Your task to perform on an android device: turn on wifi Image 0: 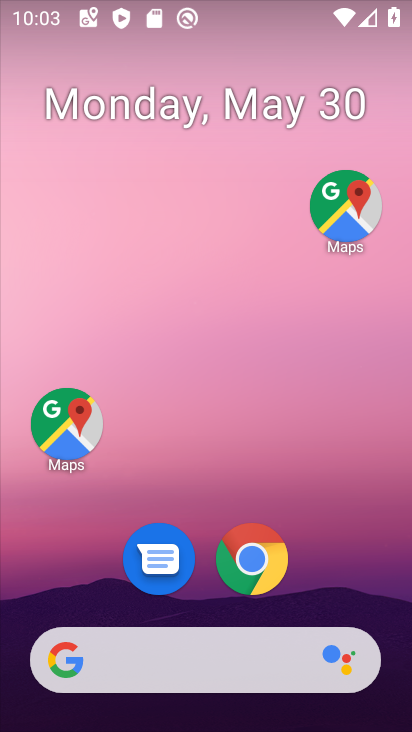
Step 0: drag from (329, 563) to (301, 133)
Your task to perform on an android device: turn on wifi Image 1: 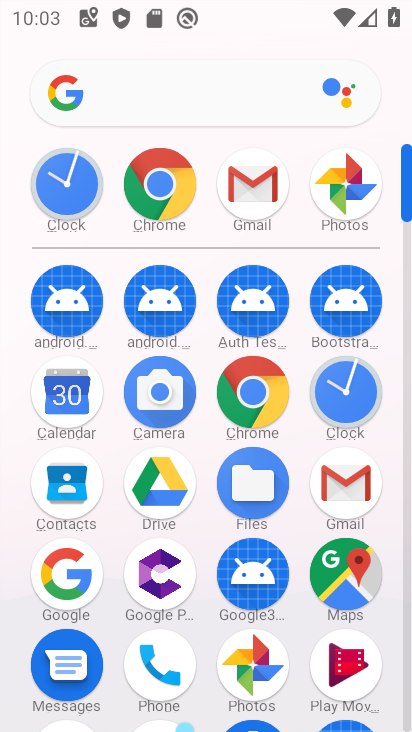
Step 1: drag from (294, 601) to (313, 303)
Your task to perform on an android device: turn on wifi Image 2: 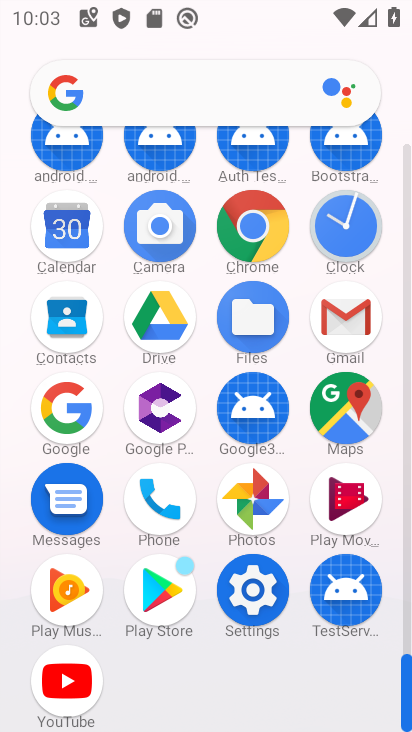
Step 2: click (254, 605)
Your task to perform on an android device: turn on wifi Image 3: 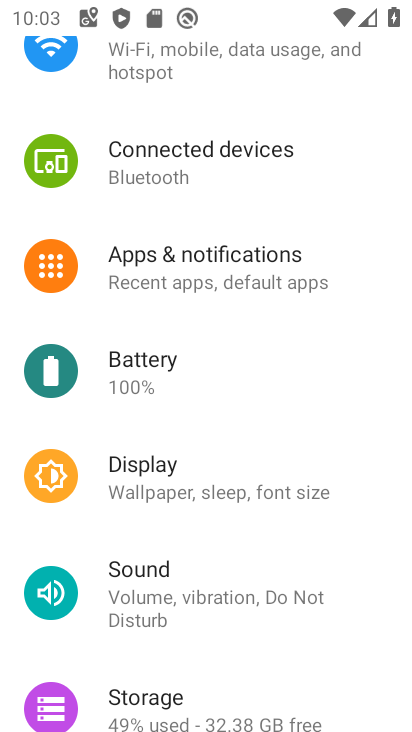
Step 3: drag from (226, 170) to (243, 581)
Your task to perform on an android device: turn on wifi Image 4: 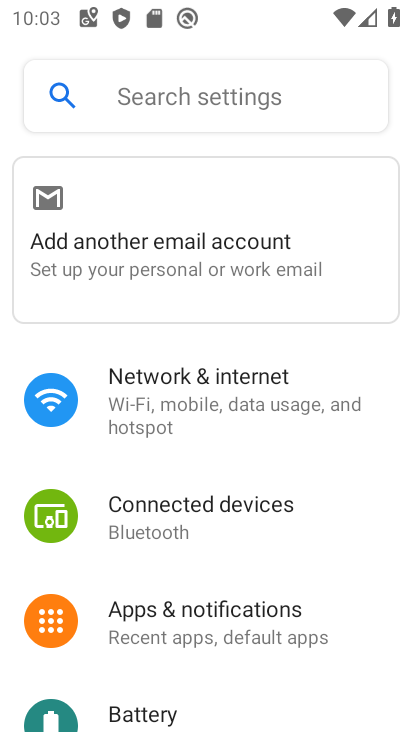
Step 4: click (198, 379)
Your task to perform on an android device: turn on wifi Image 5: 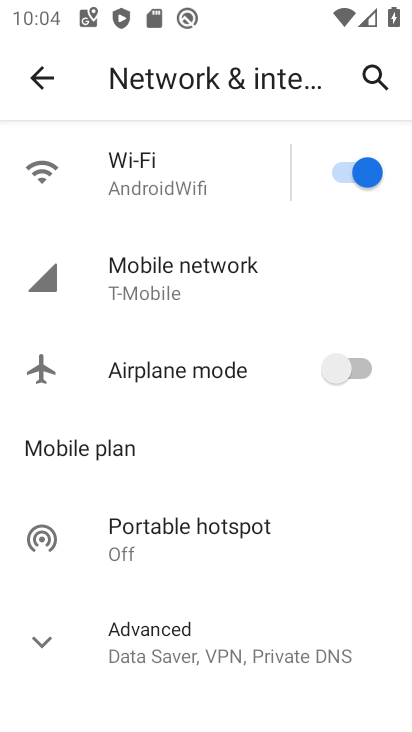
Step 5: task complete